Your task to perform on an android device: Open the calendar and show me this week's events? Image 0: 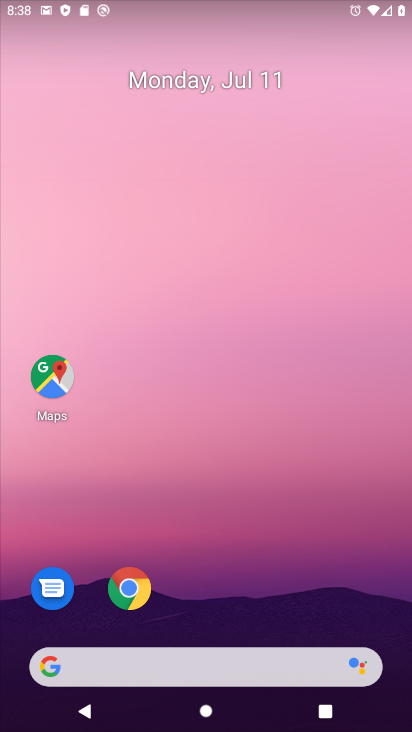
Step 0: drag from (189, 659) to (294, 211)
Your task to perform on an android device: Open the calendar and show me this week's events? Image 1: 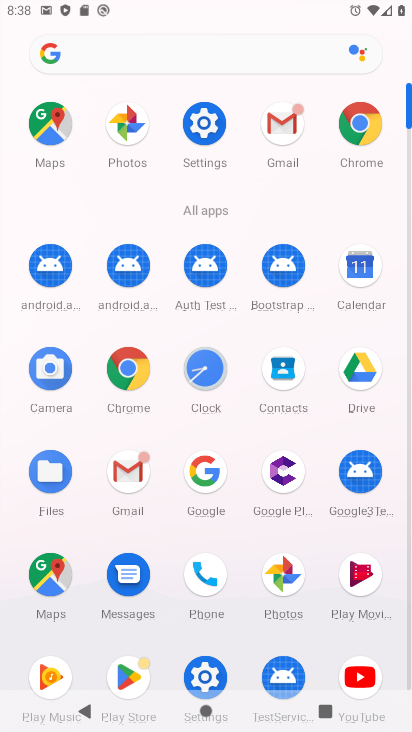
Step 1: click (354, 273)
Your task to perform on an android device: Open the calendar and show me this week's events? Image 2: 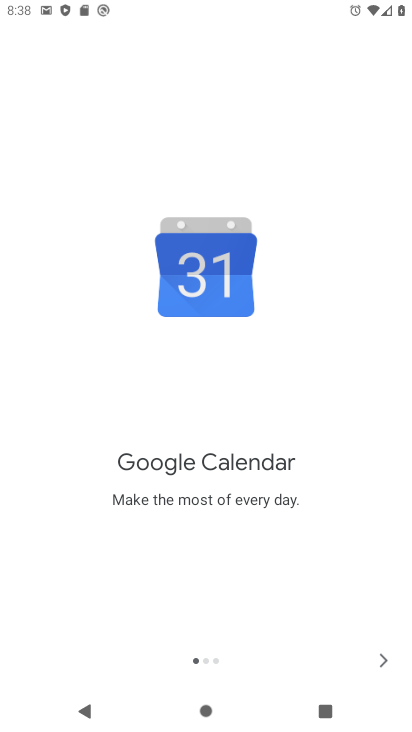
Step 2: click (378, 653)
Your task to perform on an android device: Open the calendar and show me this week's events? Image 3: 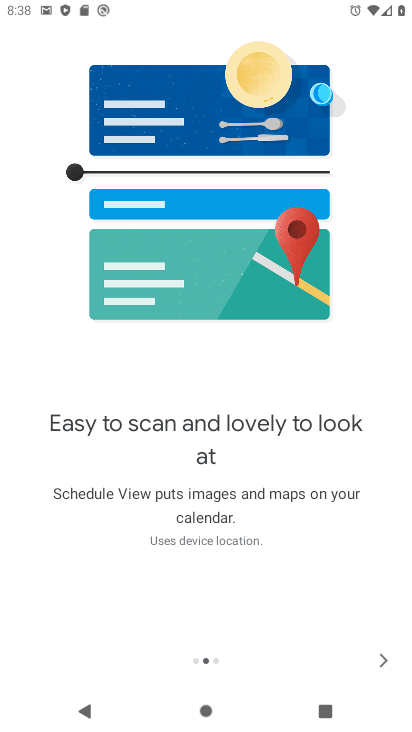
Step 3: click (381, 659)
Your task to perform on an android device: Open the calendar and show me this week's events? Image 4: 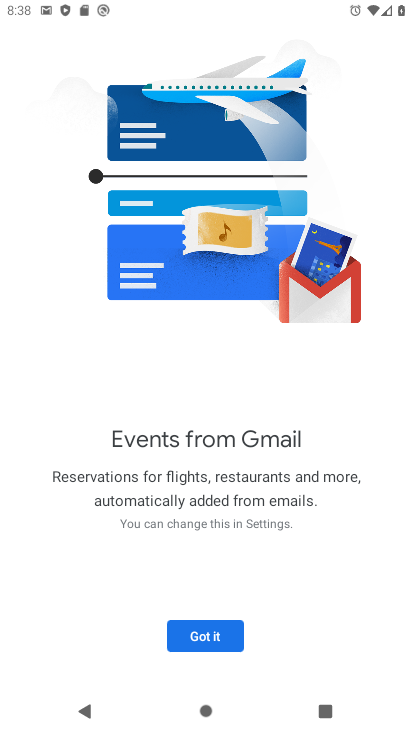
Step 4: click (219, 635)
Your task to perform on an android device: Open the calendar and show me this week's events? Image 5: 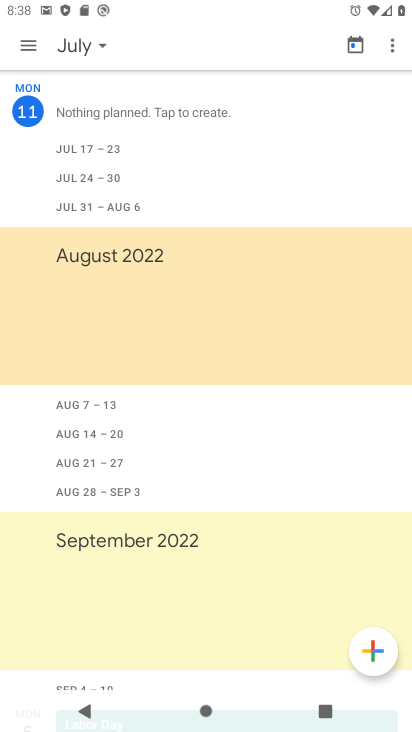
Step 5: click (75, 40)
Your task to perform on an android device: Open the calendar and show me this week's events? Image 6: 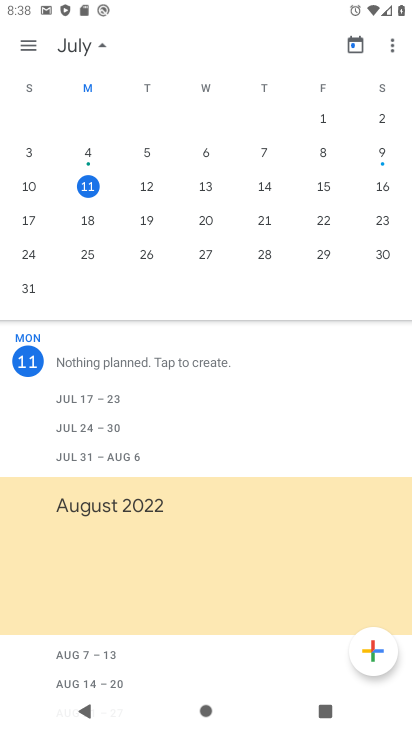
Step 6: click (27, 223)
Your task to perform on an android device: Open the calendar and show me this week's events? Image 7: 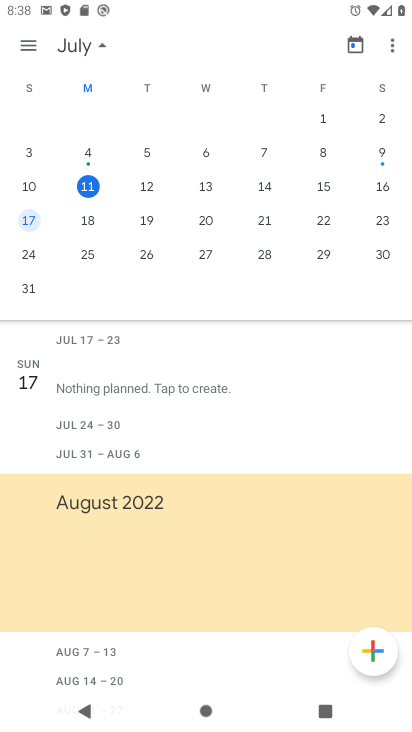
Step 7: click (33, 44)
Your task to perform on an android device: Open the calendar and show me this week's events? Image 8: 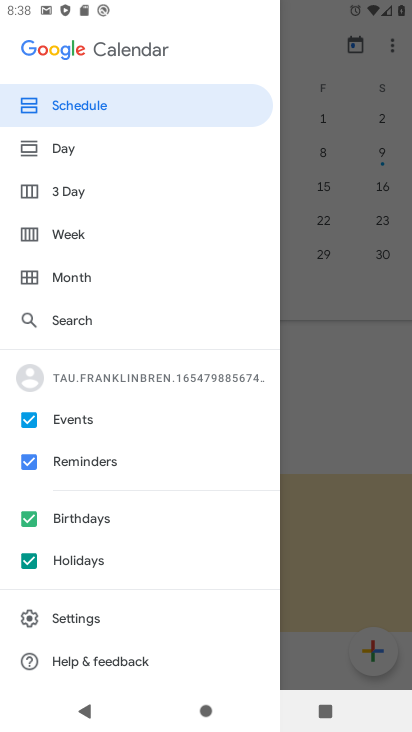
Step 8: click (77, 234)
Your task to perform on an android device: Open the calendar and show me this week's events? Image 9: 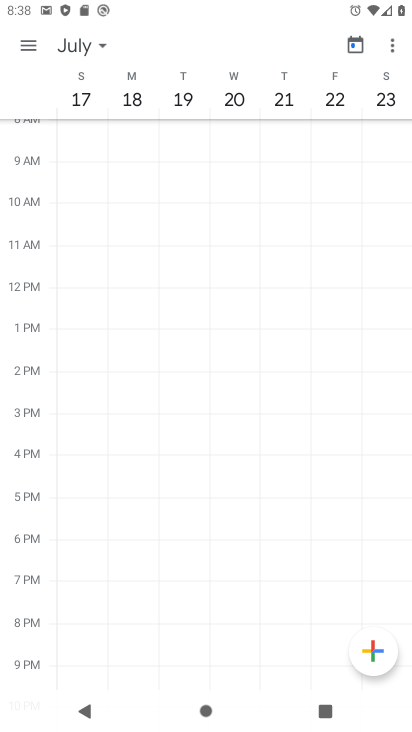
Step 9: click (32, 41)
Your task to perform on an android device: Open the calendar and show me this week's events? Image 10: 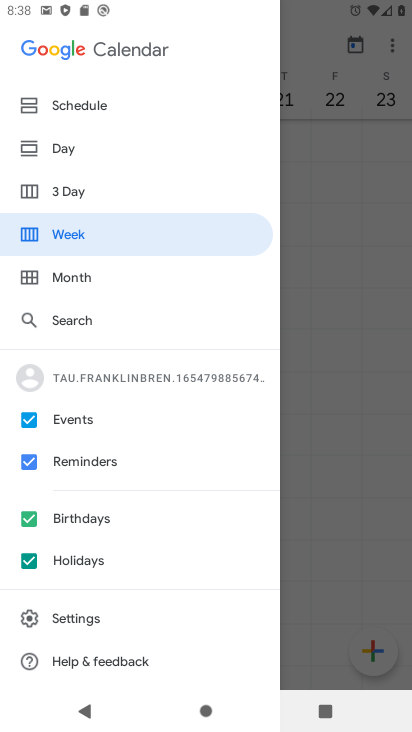
Step 10: click (85, 103)
Your task to perform on an android device: Open the calendar and show me this week's events? Image 11: 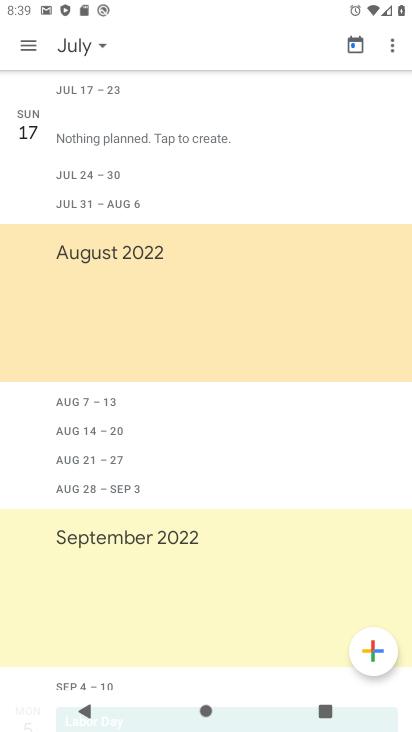
Step 11: task complete